Your task to perform on an android device: turn pop-ups on in chrome Image 0: 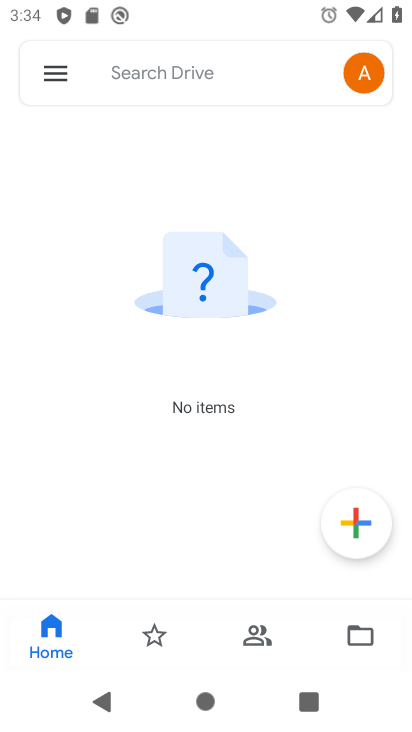
Step 0: press home button
Your task to perform on an android device: turn pop-ups on in chrome Image 1: 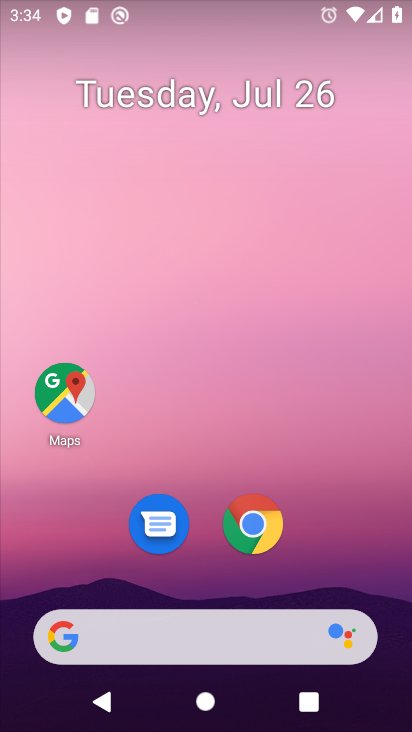
Step 1: click (259, 538)
Your task to perform on an android device: turn pop-ups on in chrome Image 2: 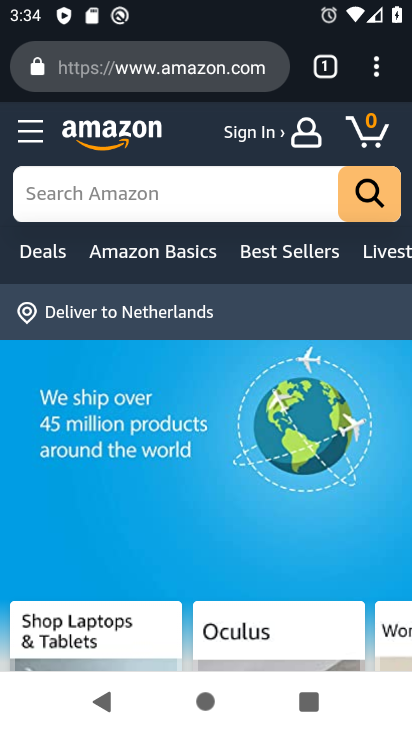
Step 2: click (259, 538)
Your task to perform on an android device: turn pop-ups on in chrome Image 3: 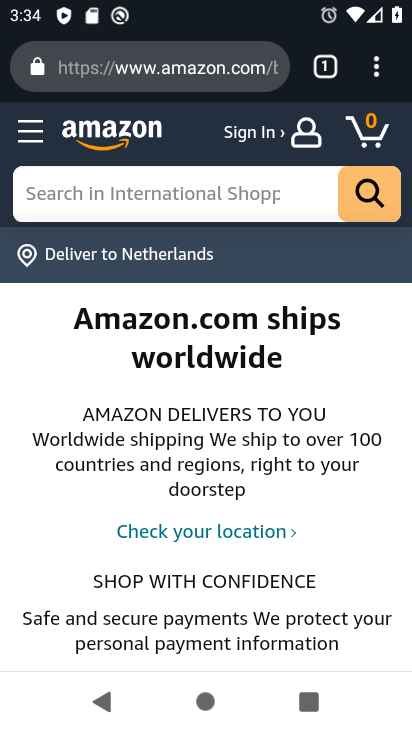
Step 3: click (371, 59)
Your task to perform on an android device: turn pop-ups on in chrome Image 4: 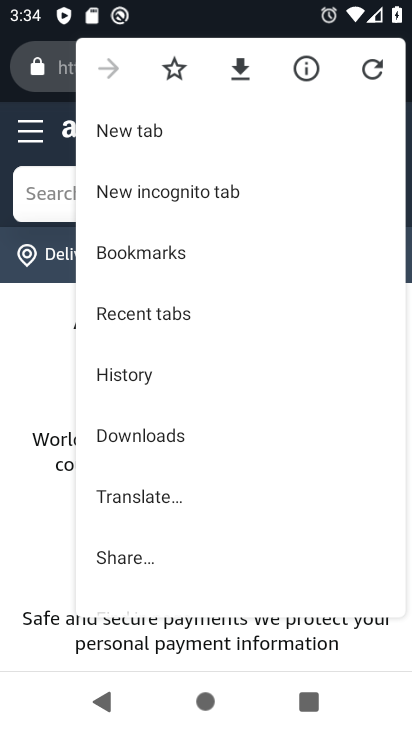
Step 4: drag from (287, 487) to (264, 185)
Your task to perform on an android device: turn pop-ups on in chrome Image 5: 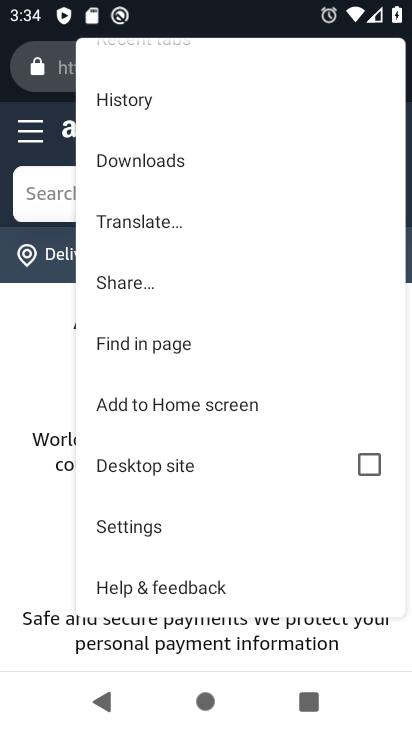
Step 5: click (156, 526)
Your task to perform on an android device: turn pop-ups on in chrome Image 6: 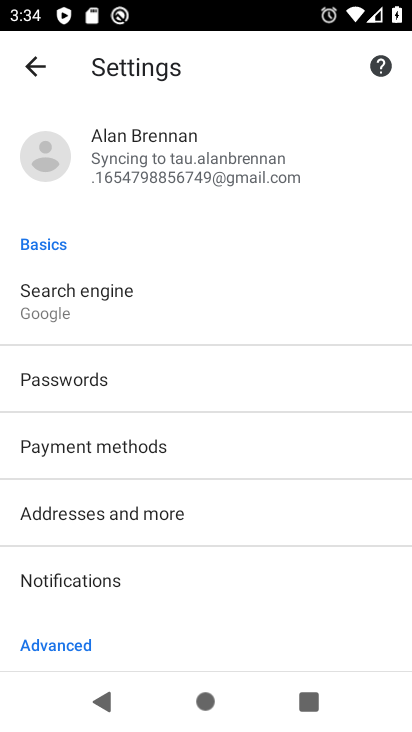
Step 6: drag from (156, 524) to (147, 227)
Your task to perform on an android device: turn pop-ups on in chrome Image 7: 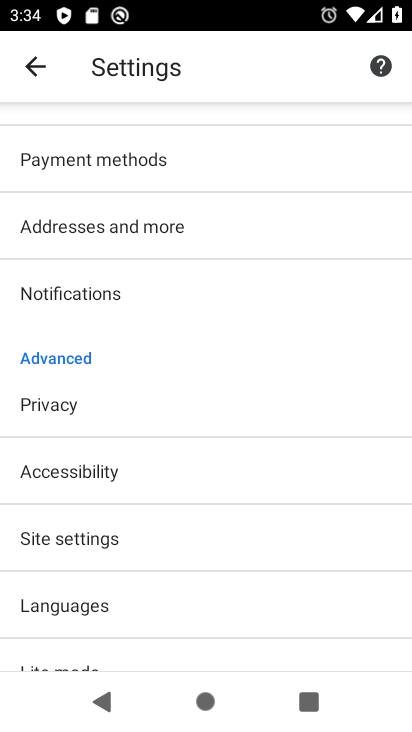
Step 7: click (98, 542)
Your task to perform on an android device: turn pop-ups on in chrome Image 8: 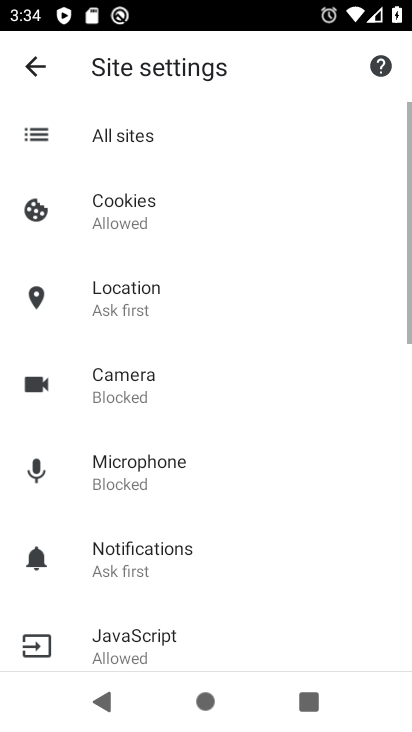
Step 8: drag from (98, 542) to (89, 180)
Your task to perform on an android device: turn pop-ups on in chrome Image 9: 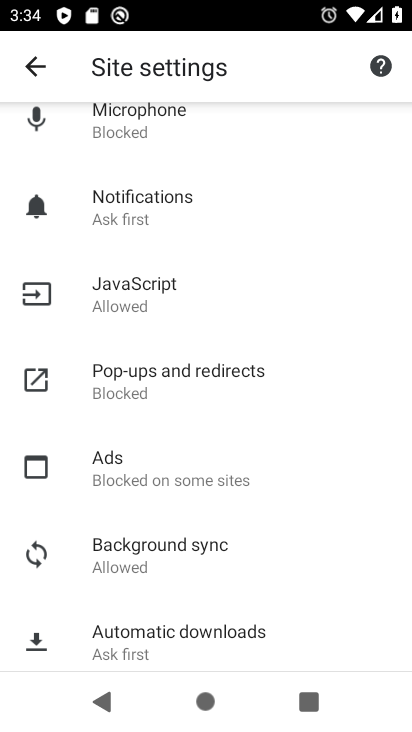
Step 9: click (170, 372)
Your task to perform on an android device: turn pop-ups on in chrome Image 10: 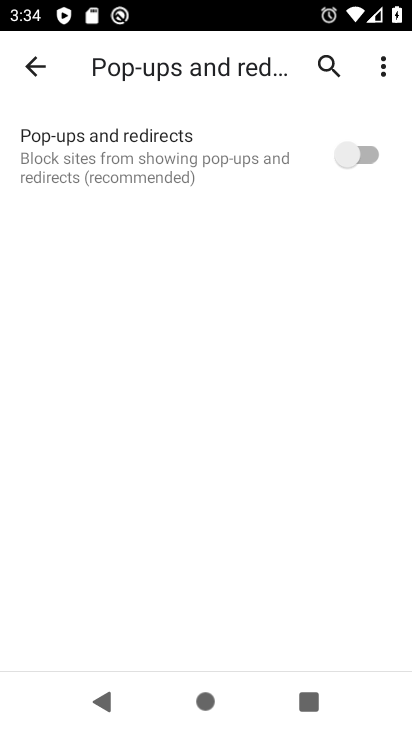
Step 10: click (352, 151)
Your task to perform on an android device: turn pop-ups on in chrome Image 11: 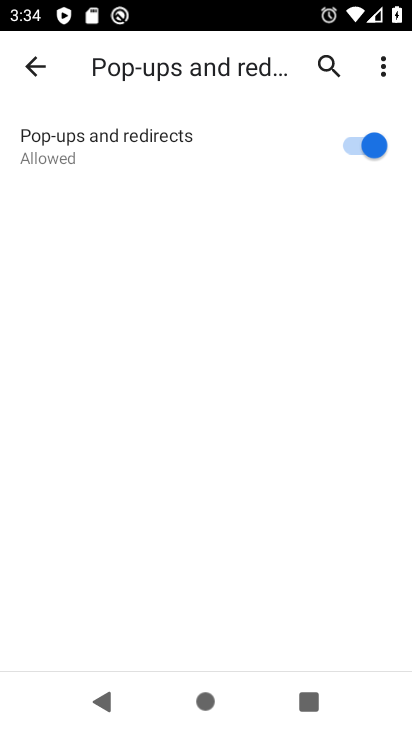
Step 11: task complete